Your task to perform on an android device: open a new tab in the chrome app Image 0: 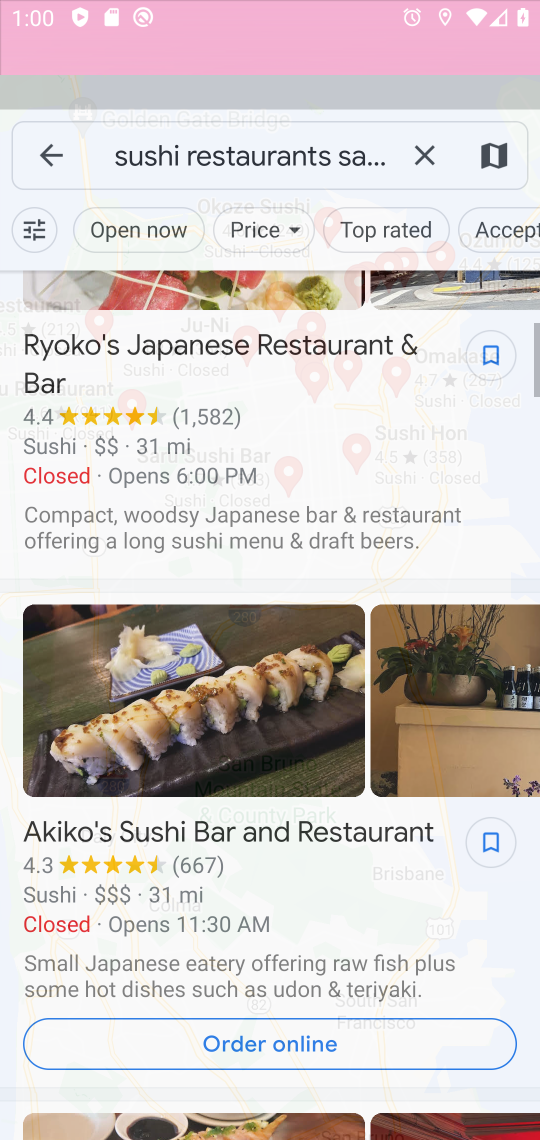
Step 0: click (230, 995)
Your task to perform on an android device: open a new tab in the chrome app Image 1: 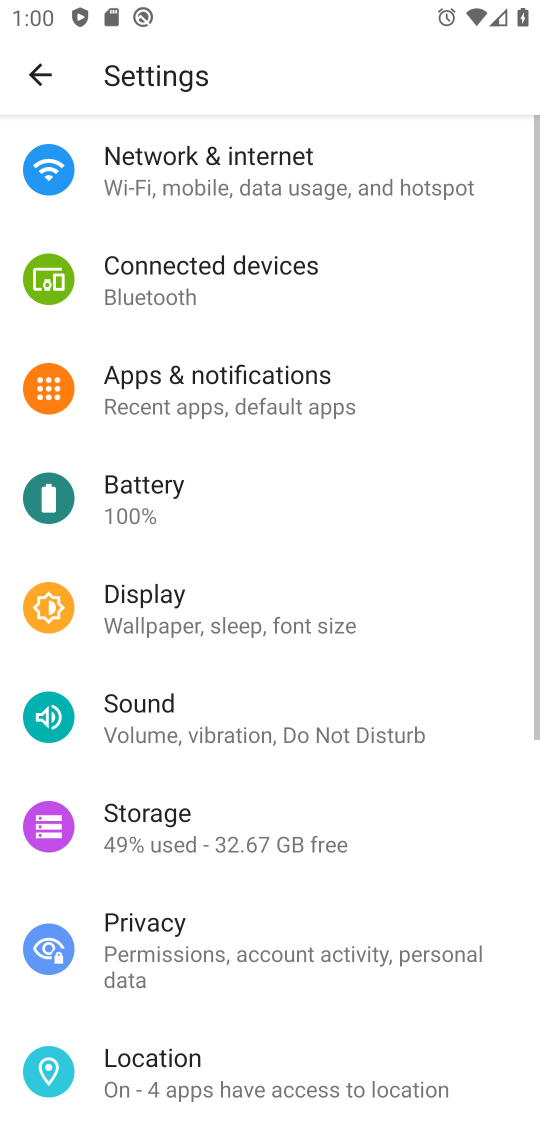
Step 1: press home button
Your task to perform on an android device: open a new tab in the chrome app Image 2: 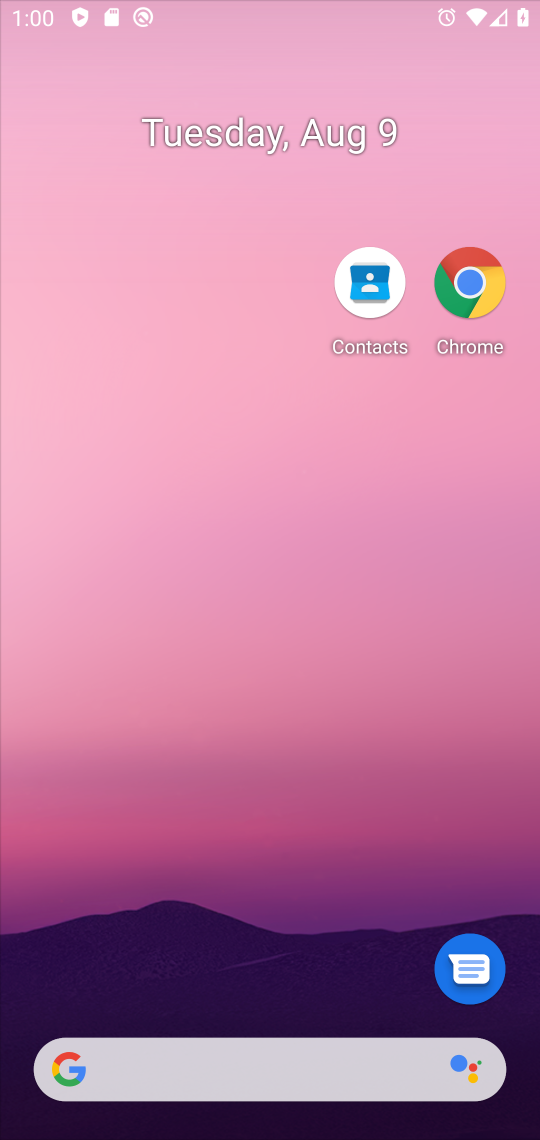
Step 2: drag from (264, 989) to (530, 37)
Your task to perform on an android device: open a new tab in the chrome app Image 3: 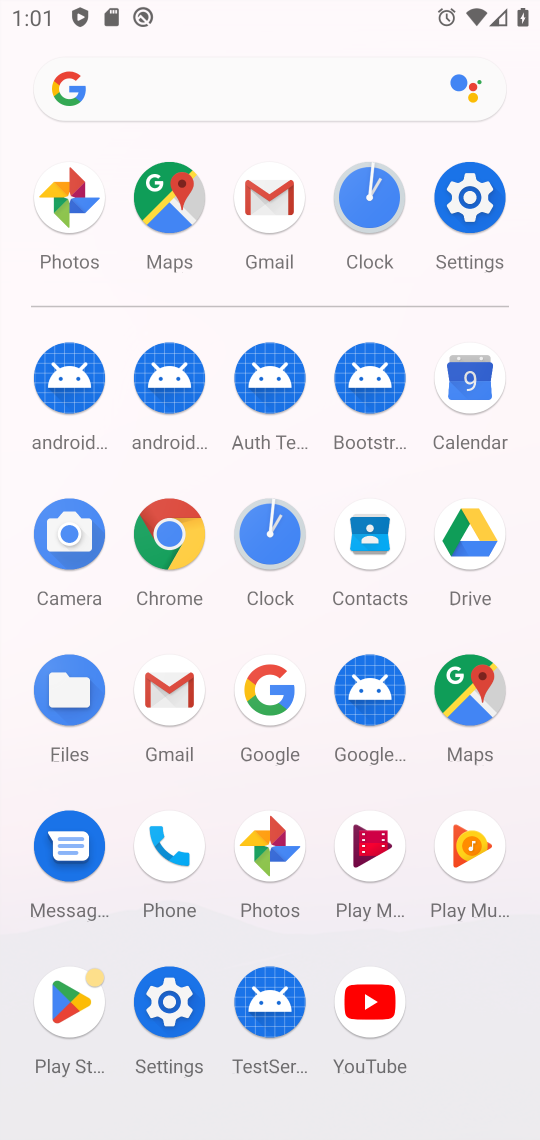
Step 3: click (164, 526)
Your task to perform on an android device: open a new tab in the chrome app Image 4: 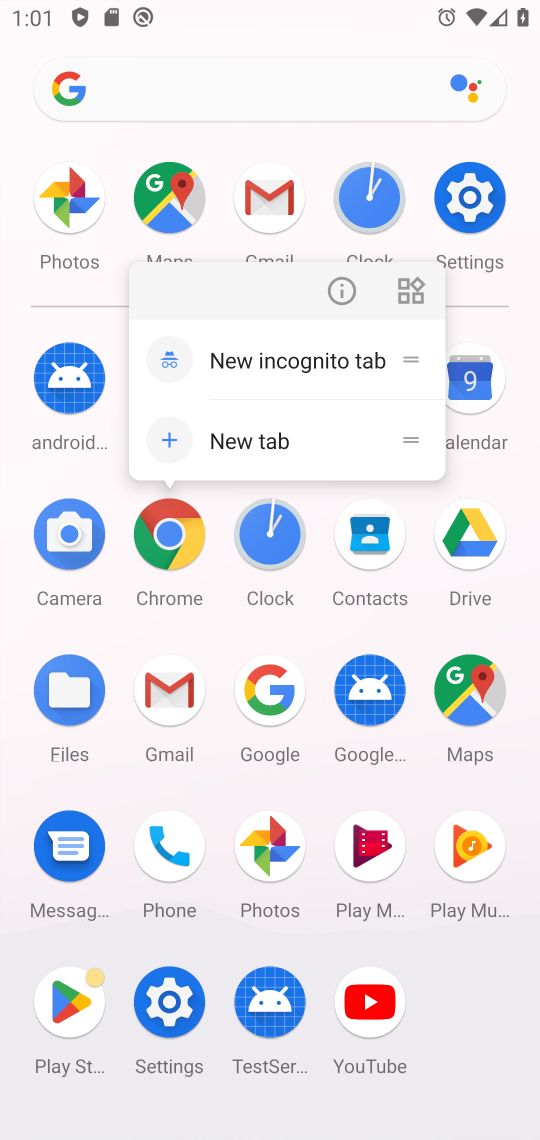
Step 4: click (336, 279)
Your task to perform on an android device: open a new tab in the chrome app Image 5: 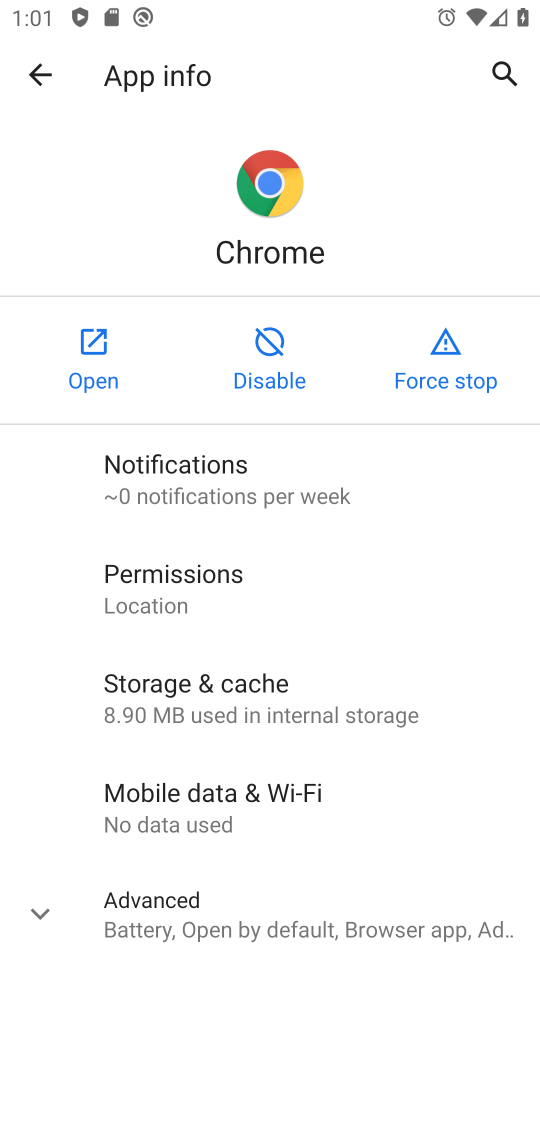
Step 5: click (97, 339)
Your task to perform on an android device: open a new tab in the chrome app Image 6: 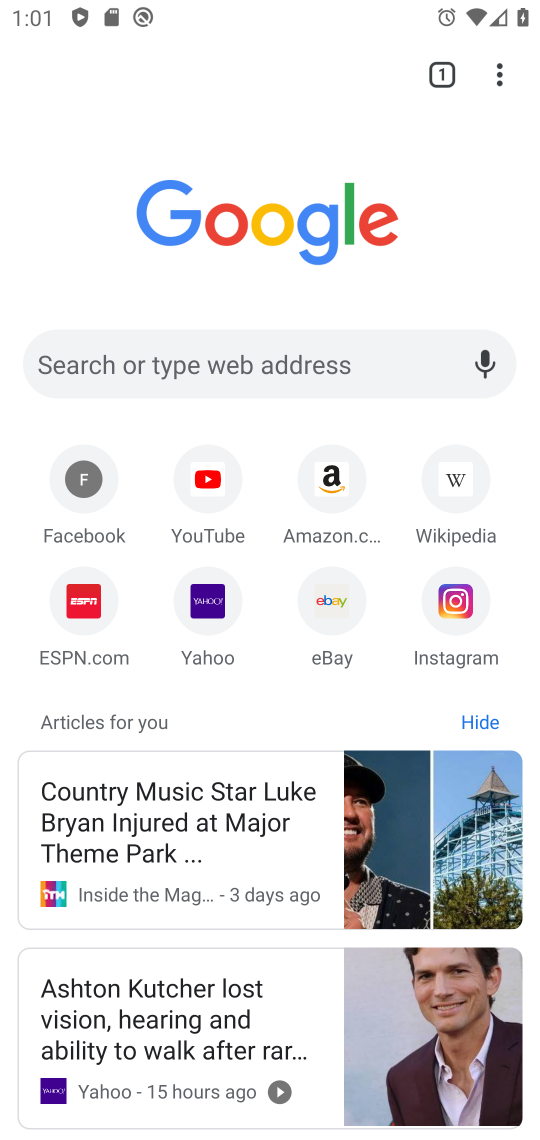
Step 6: task complete